Your task to perform on an android device: Go to eBay Image 0: 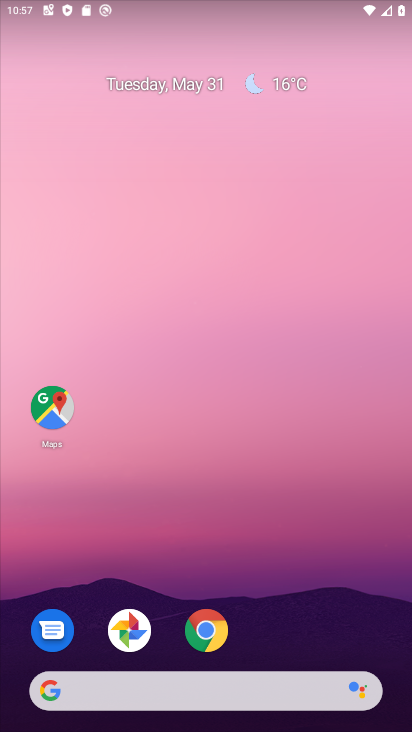
Step 0: click (197, 629)
Your task to perform on an android device: Go to eBay Image 1: 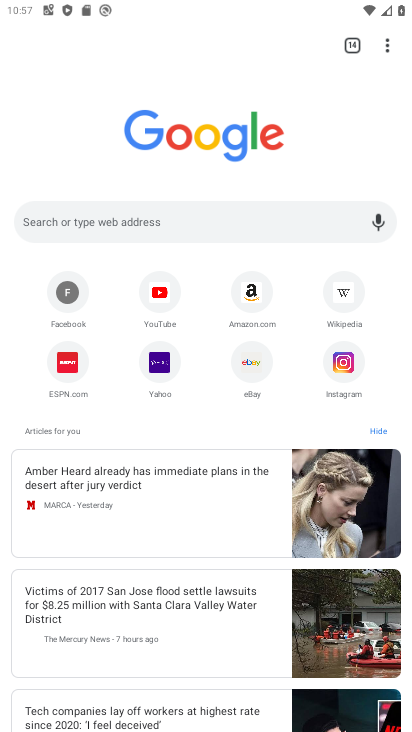
Step 1: click (247, 350)
Your task to perform on an android device: Go to eBay Image 2: 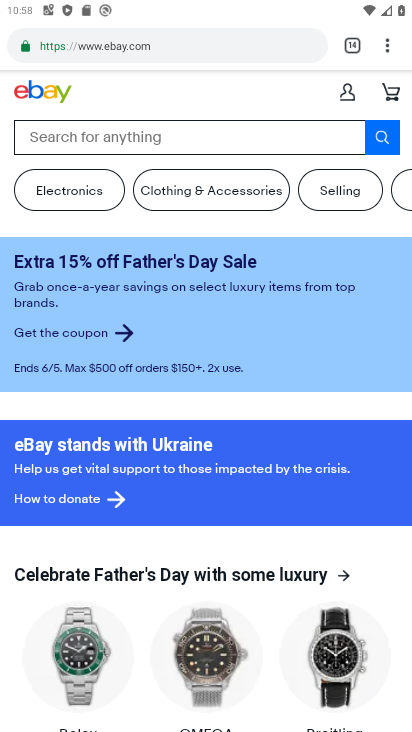
Step 2: task complete